Your task to perform on an android device: install app "Microsoft Excel" Image 0: 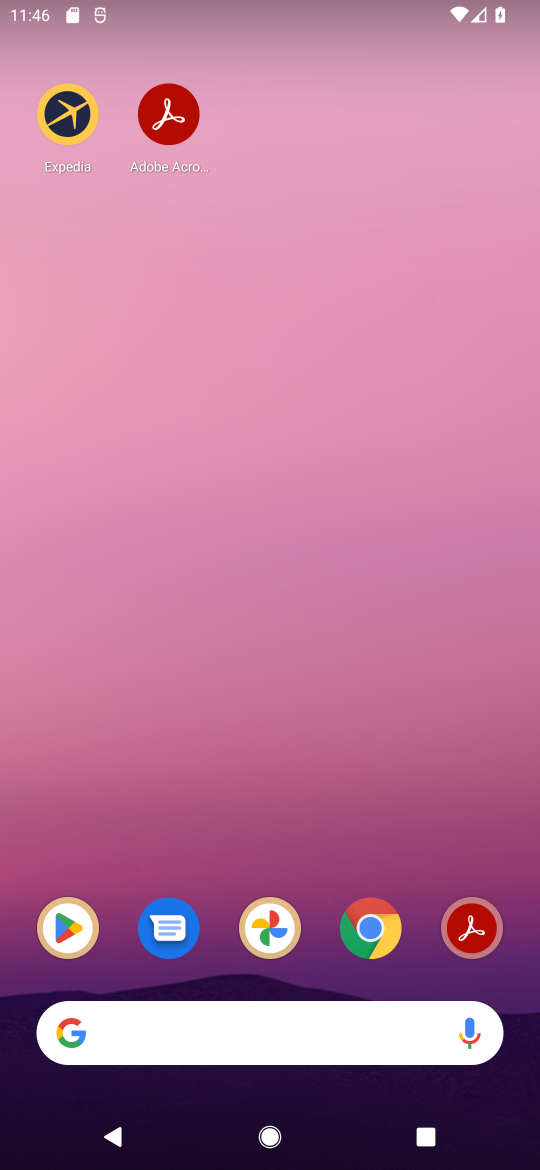
Step 0: press home button
Your task to perform on an android device: install app "Microsoft Excel" Image 1: 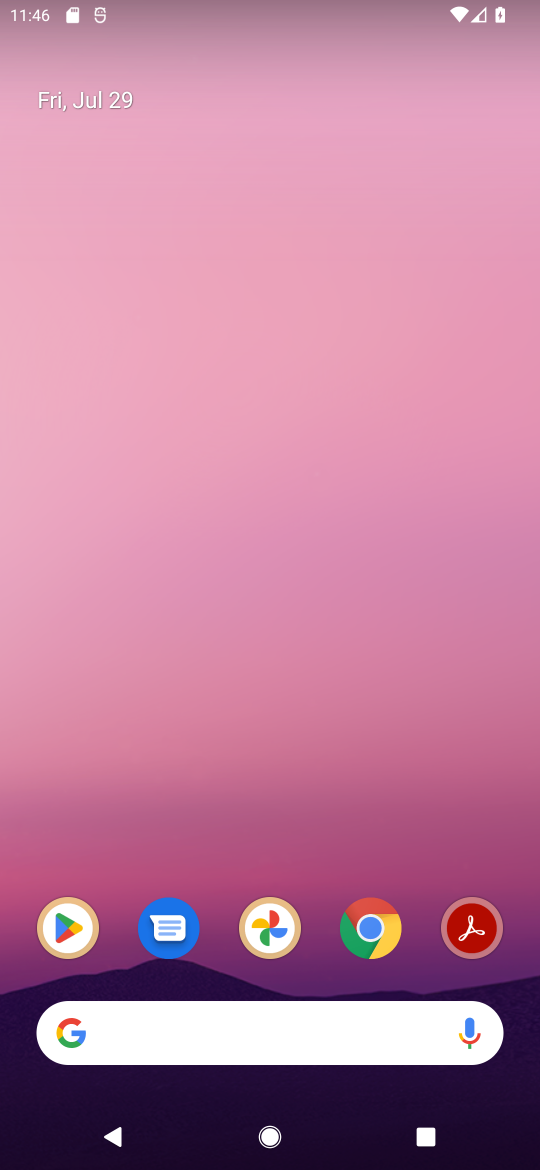
Step 1: drag from (430, 852) to (352, 193)
Your task to perform on an android device: install app "Microsoft Excel" Image 2: 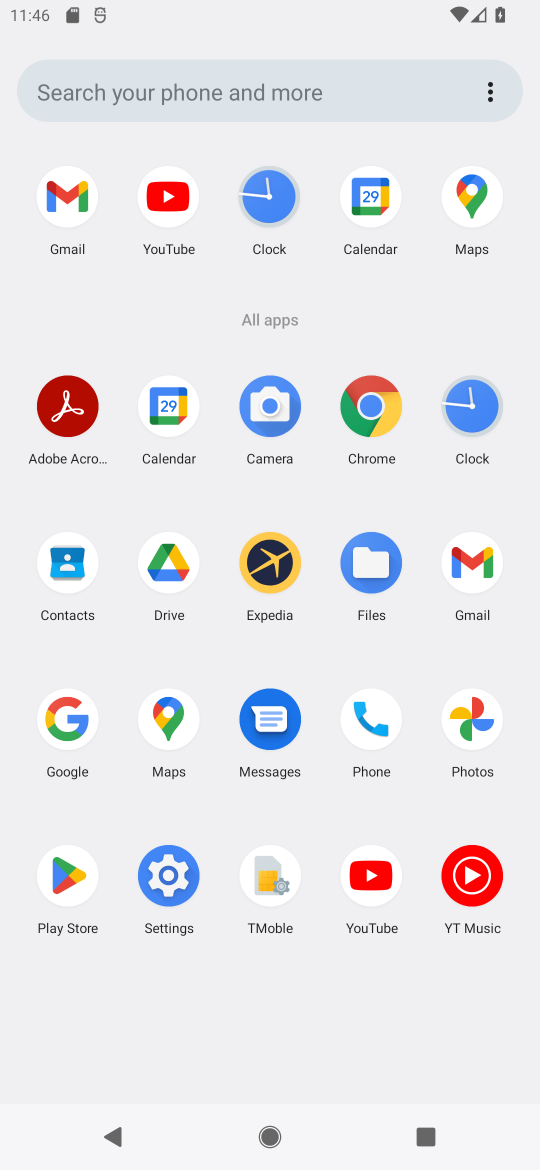
Step 2: click (68, 862)
Your task to perform on an android device: install app "Microsoft Excel" Image 3: 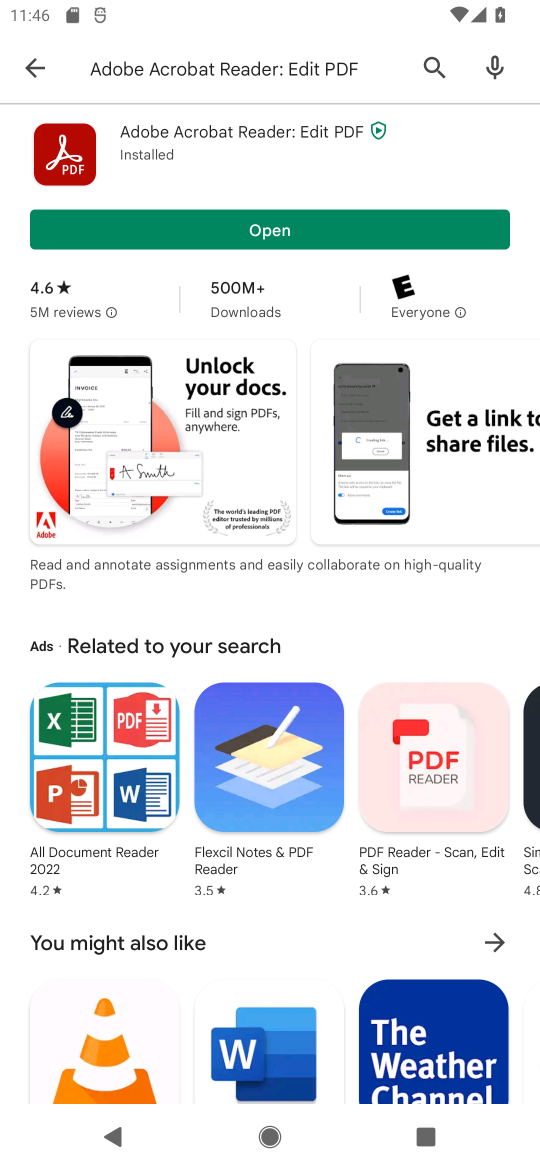
Step 3: click (256, 63)
Your task to perform on an android device: install app "Microsoft Excel" Image 4: 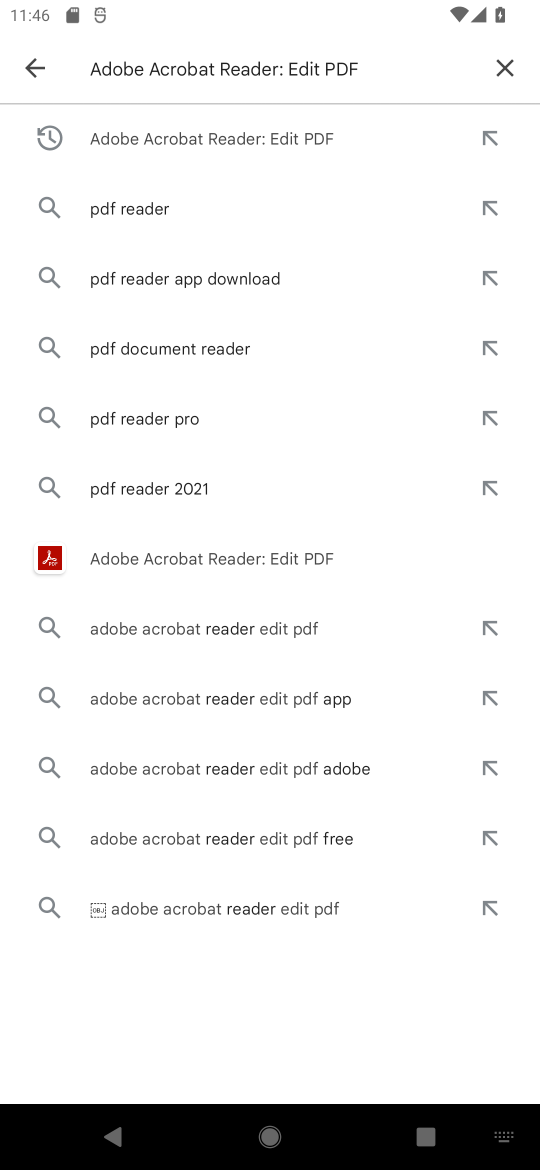
Step 4: click (512, 66)
Your task to perform on an android device: install app "Microsoft Excel" Image 5: 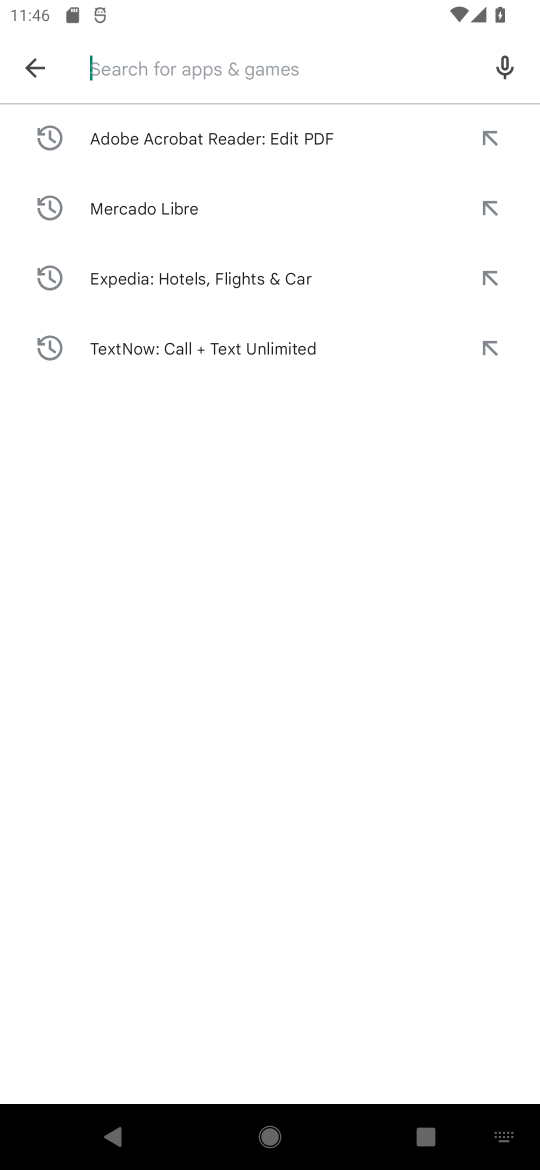
Step 5: type "Microsoft Excel"
Your task to perform on an android device: install app "Microsoft Excel" Image 6: 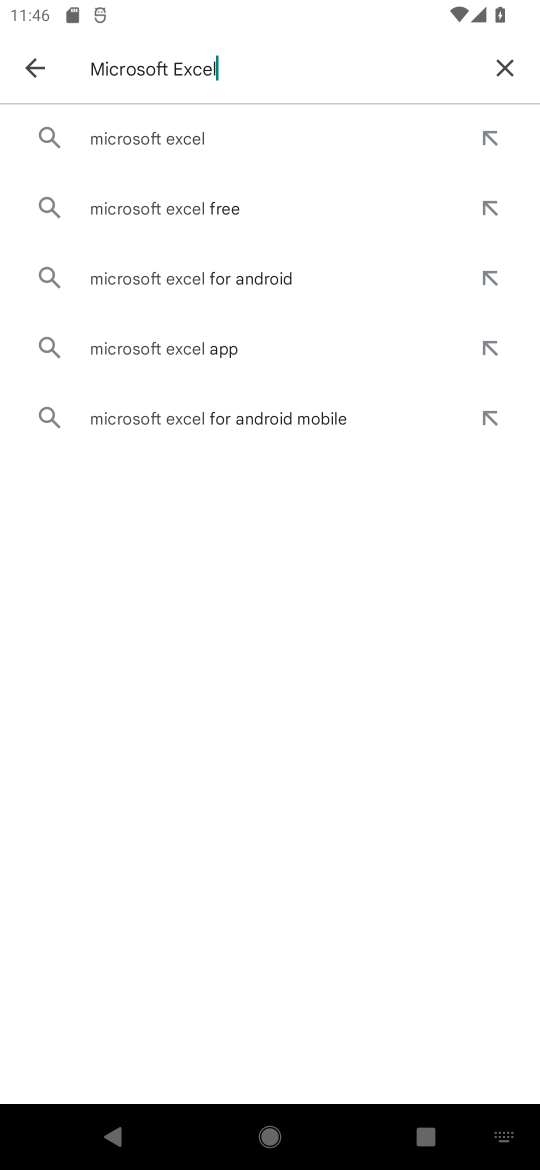
Step 6: press enter
Your task to perform on an android device: install app "Microsoft Excel" Image 7: 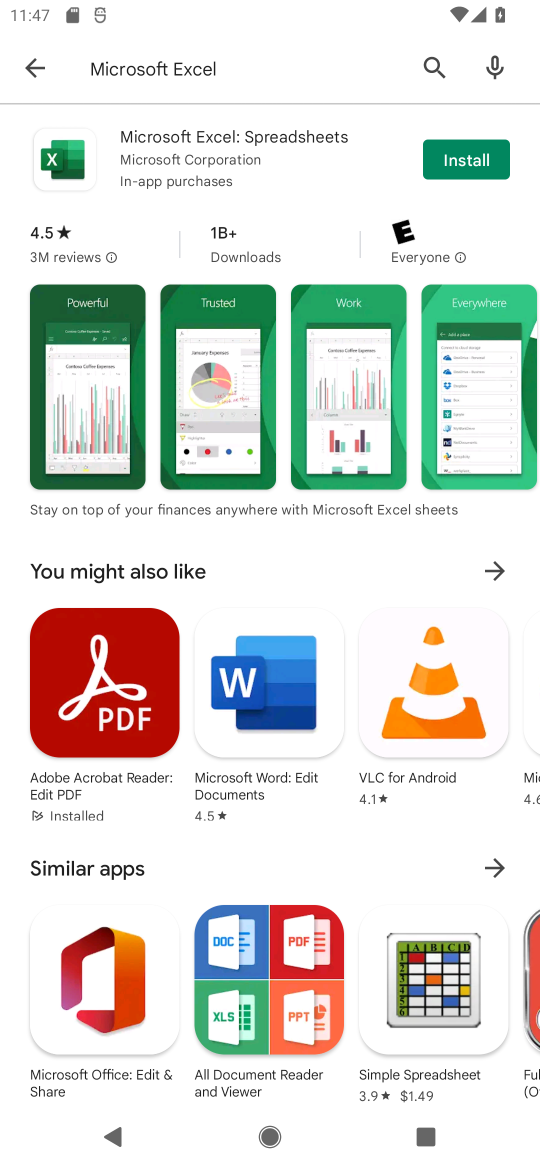
Step 7: click (471, 158)
Your task to perform on an android device: install app "Microsoft Excel" Image 8: 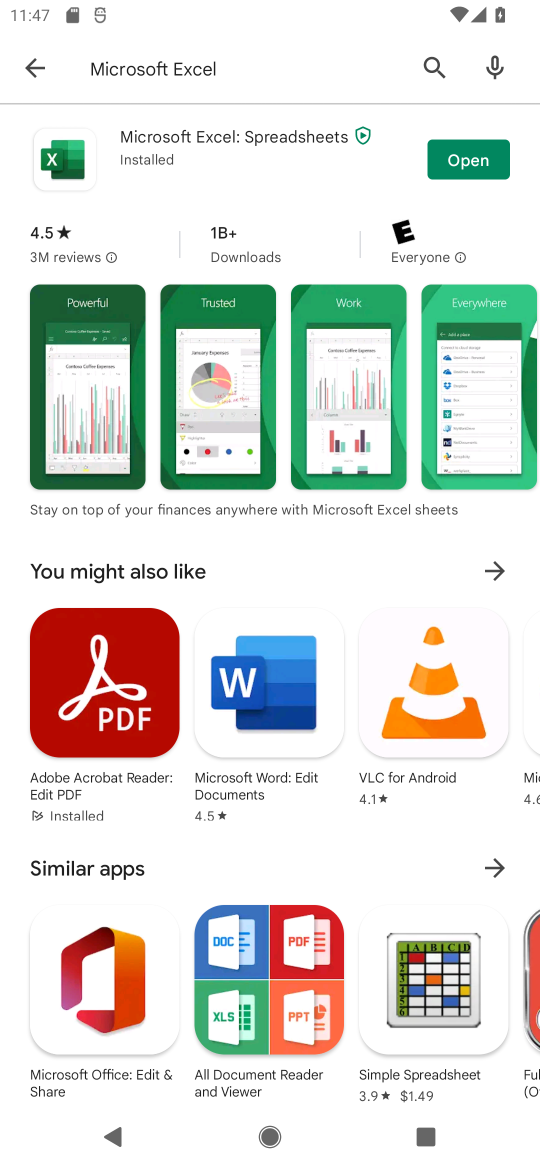
Step 8: task complete